Your task to perform on an android device: Show the shopping cart on amazon. Add "macbook" to the cart on amazon Image 0: 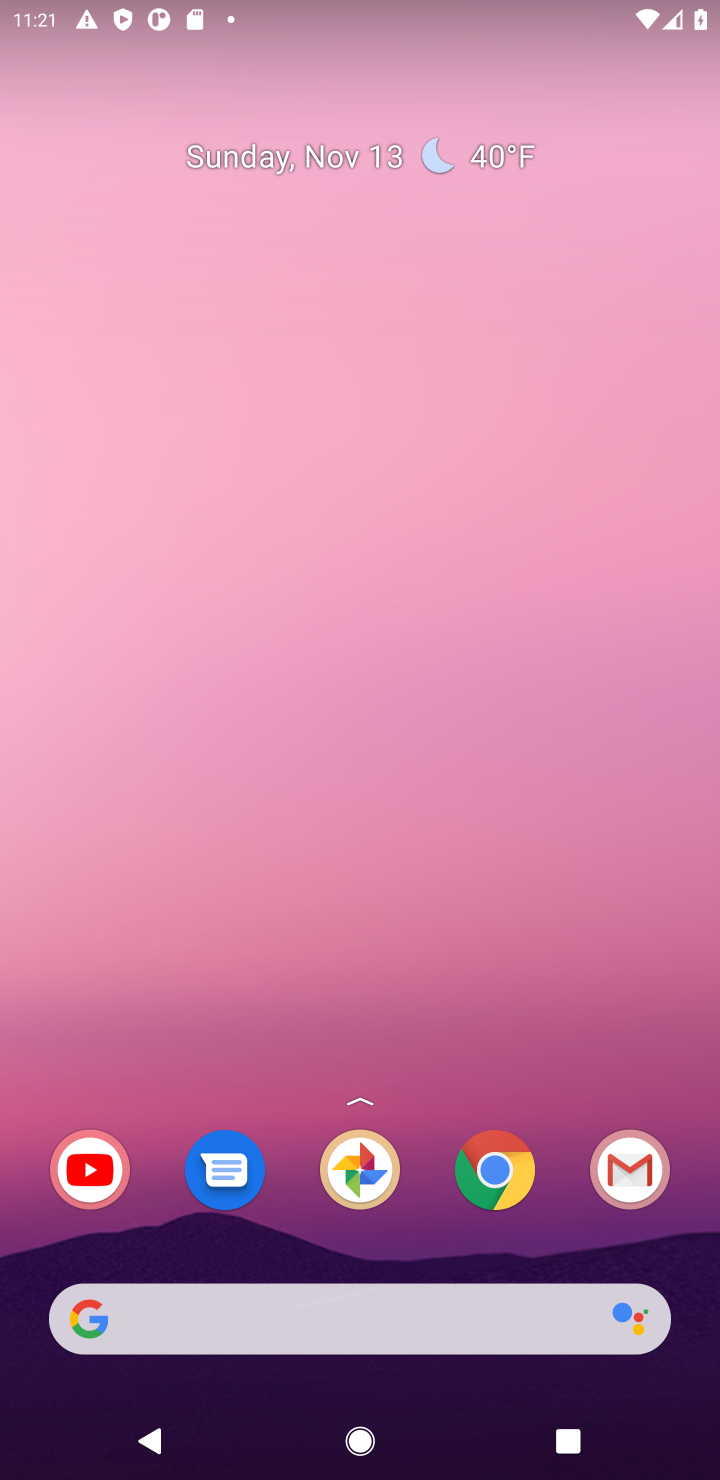
Step 0: drag from (160, 438) to (249, 6)
Your task to perform on an android device: Show the shopping cart on amazon. Add "macbook" to the cart on amazon Image 1: 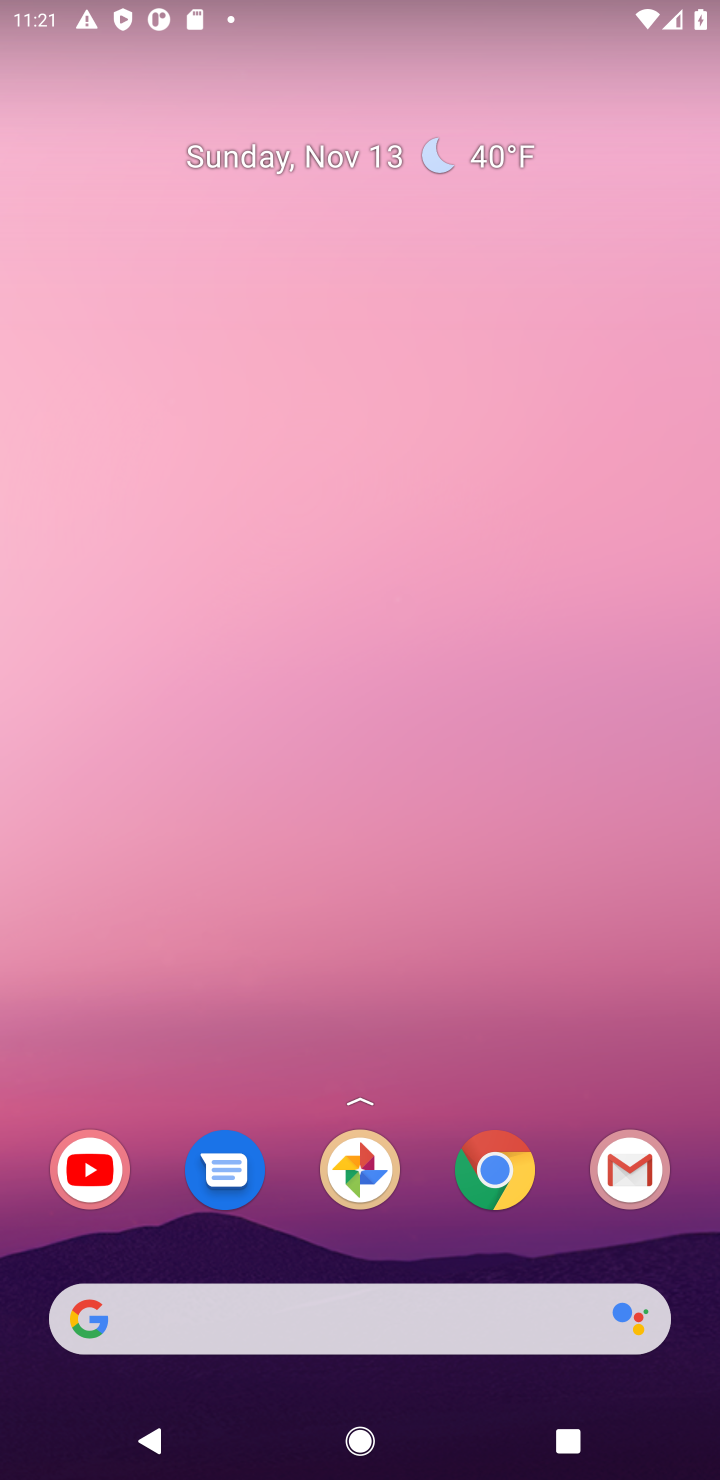
Step 1: drag from (435, 1164) to (419, 0)
Your task to perform on an android device: Show the shopping cart on amazon. Add "macbook" to the cart on amazon Image 2: 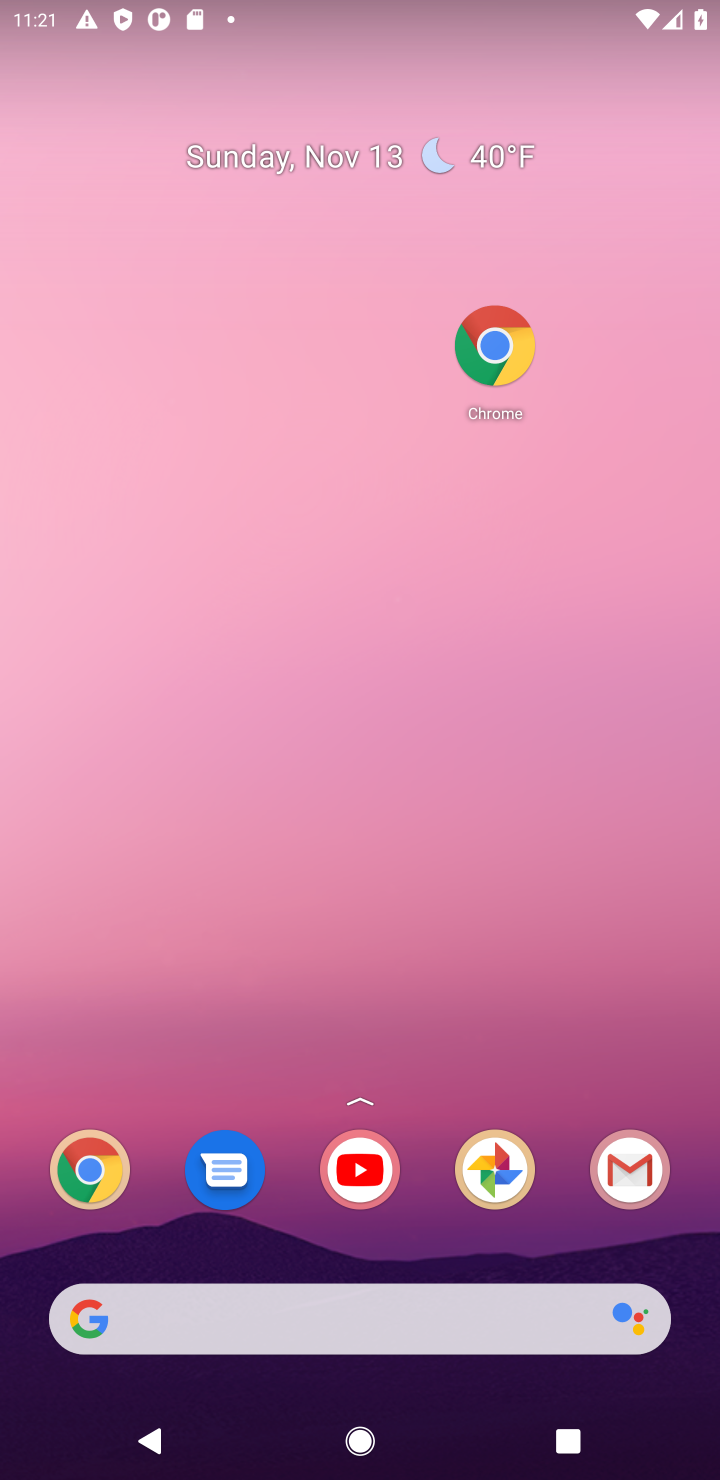
Step 2: drag from (325, 676) to (112, 18)
Your task to perform on an android device: Show the shopping cart on amazon. Add "macbook" to the cart on amazon Image 3: 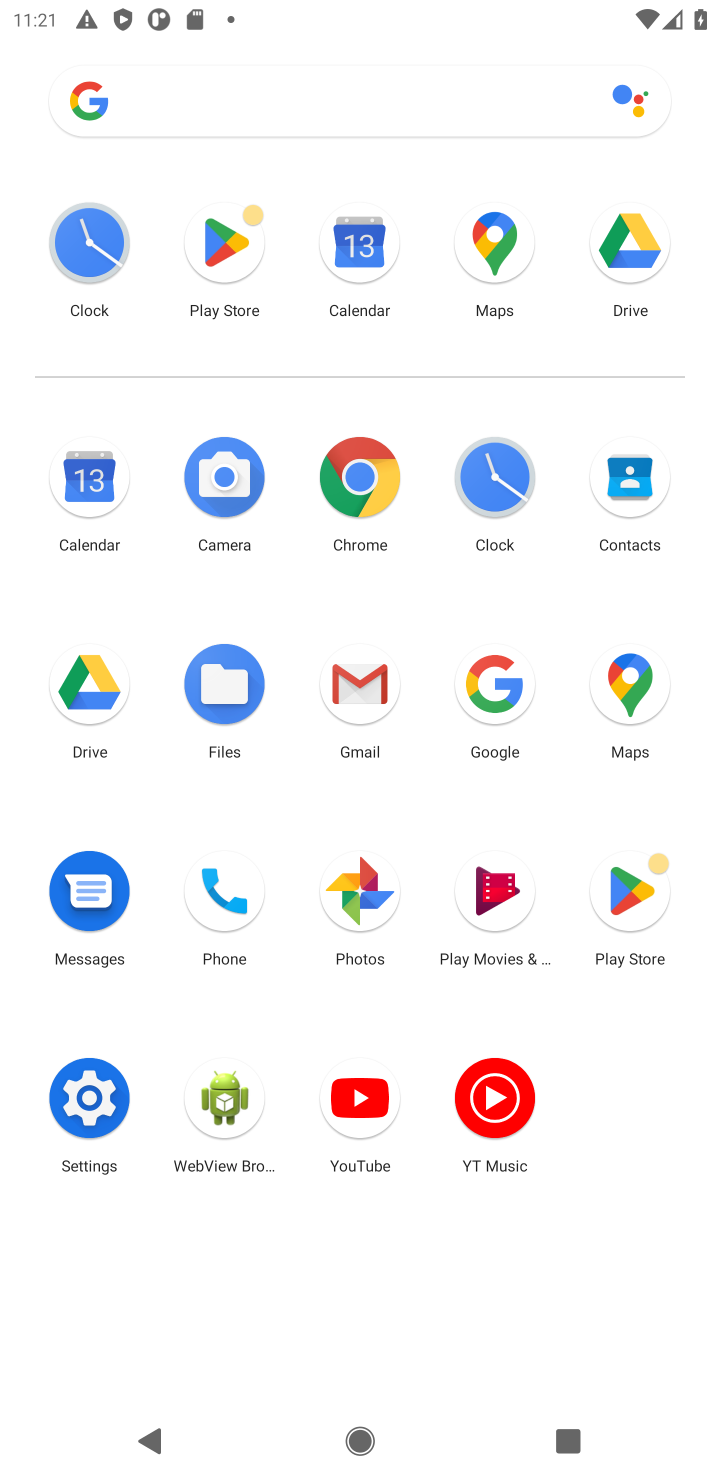
Step 3: click (352, 525)
Your task to perform on an android device: Show the shopping cart on amazon. Add "macbook" to the cart on amazon Image 4: 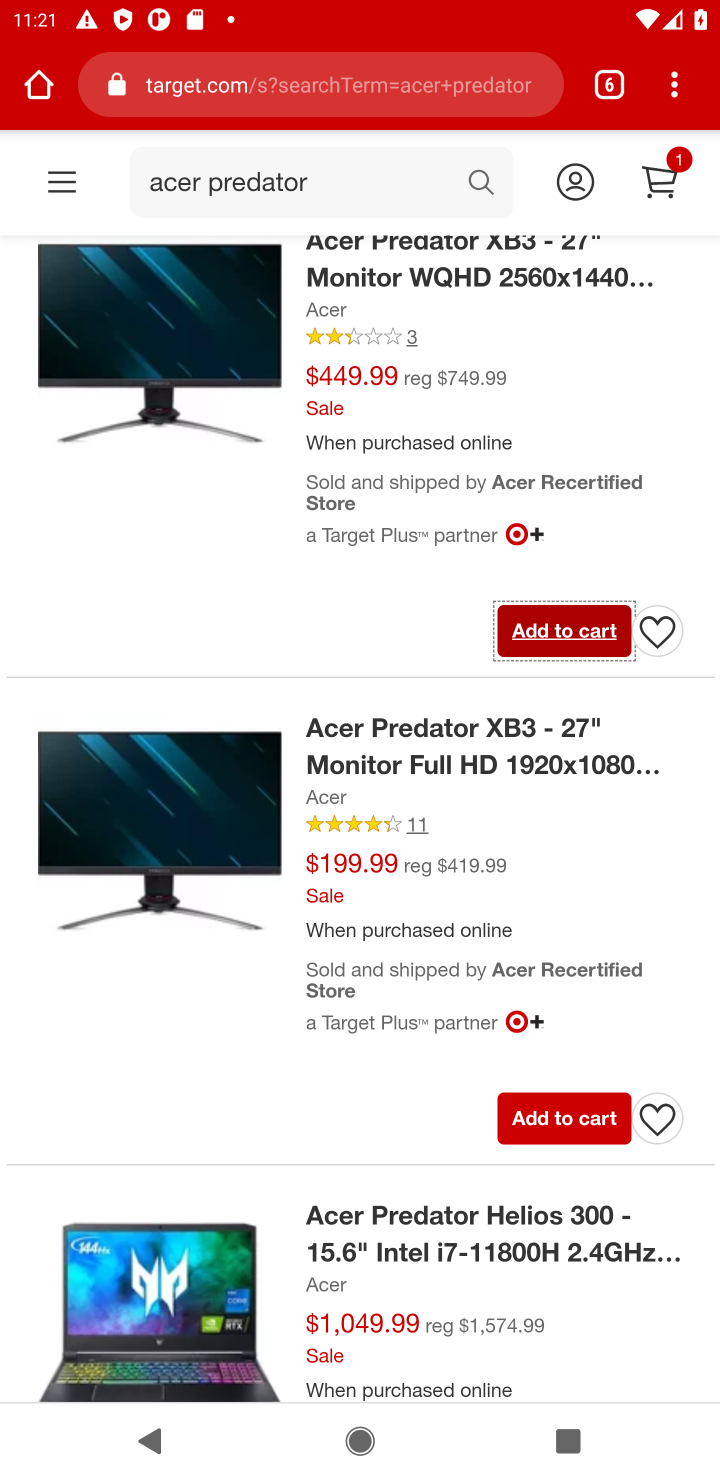
Step 4: click (265, 81)
Your task to perform on an android device: Show the shopping cart on amazon. Add "macbook" to the cart on amazon Image 5: 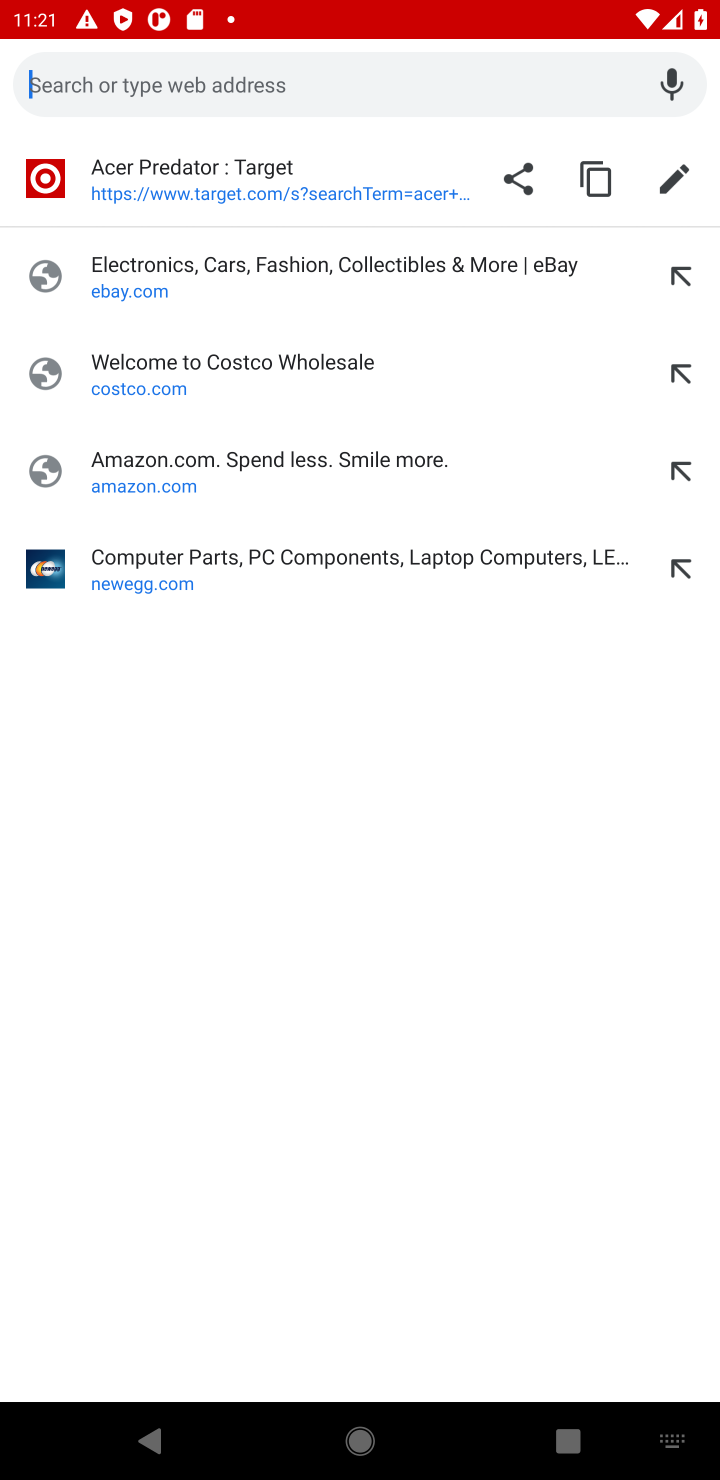
Step 5: press enter
Your task to perform on an android device: Show the shopping cart on amazon. Add "macbook" to the cart on amazon Image 6: 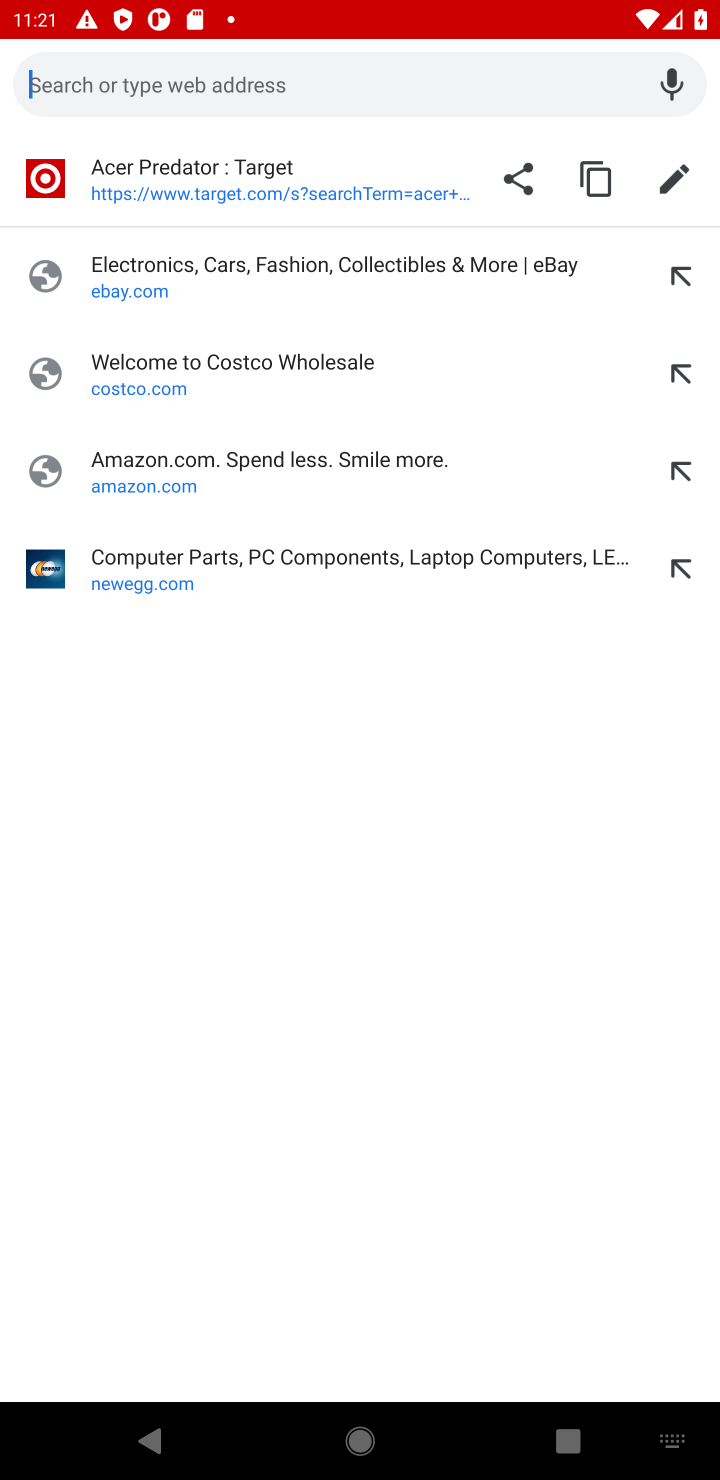
Step 6: type "amazon"
Your task to perform on an android device: Show the shopping cart on amazon. Add "macbook" to the cart on amazon Image 7: 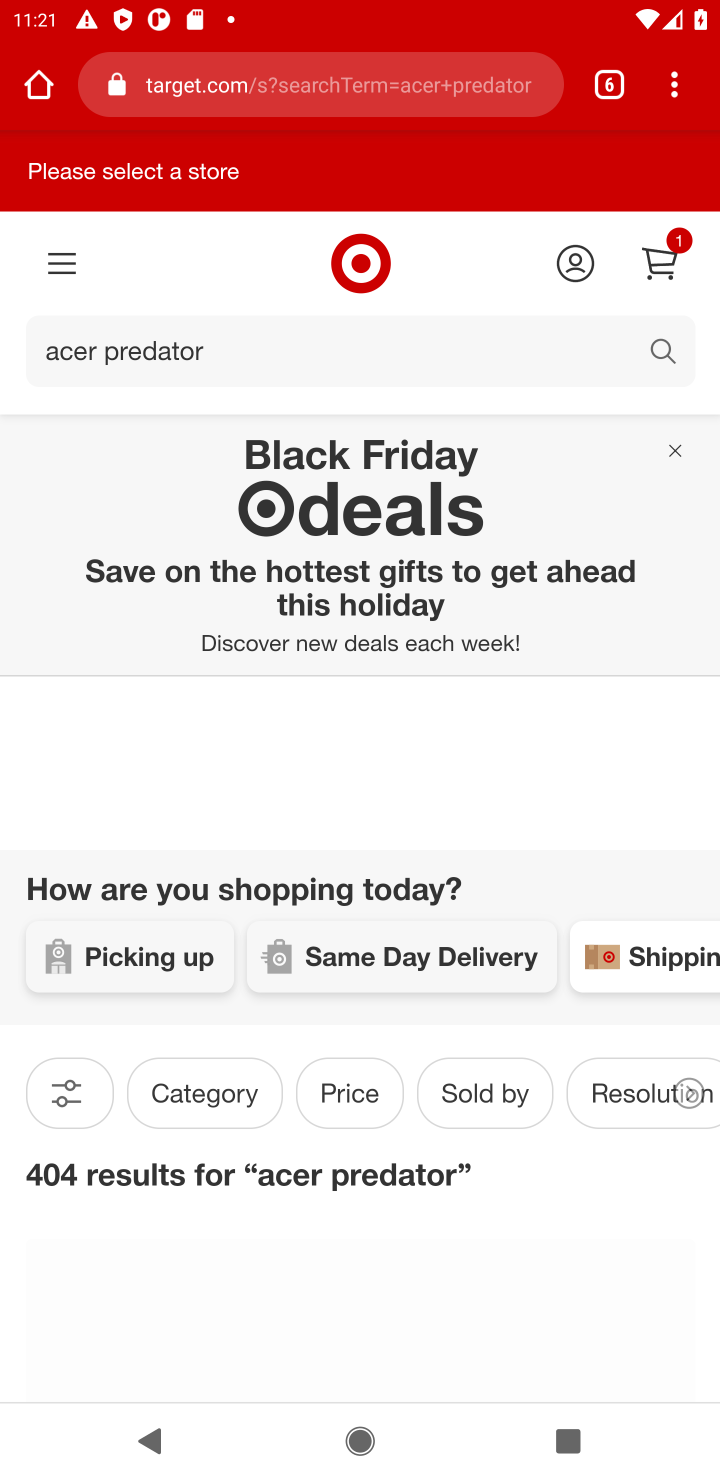
Step 7: click (455, 110)
Your task to perform on an android device: Show the shopping cart on amazon. Add "macbook" to the cart on amazon Image 8: 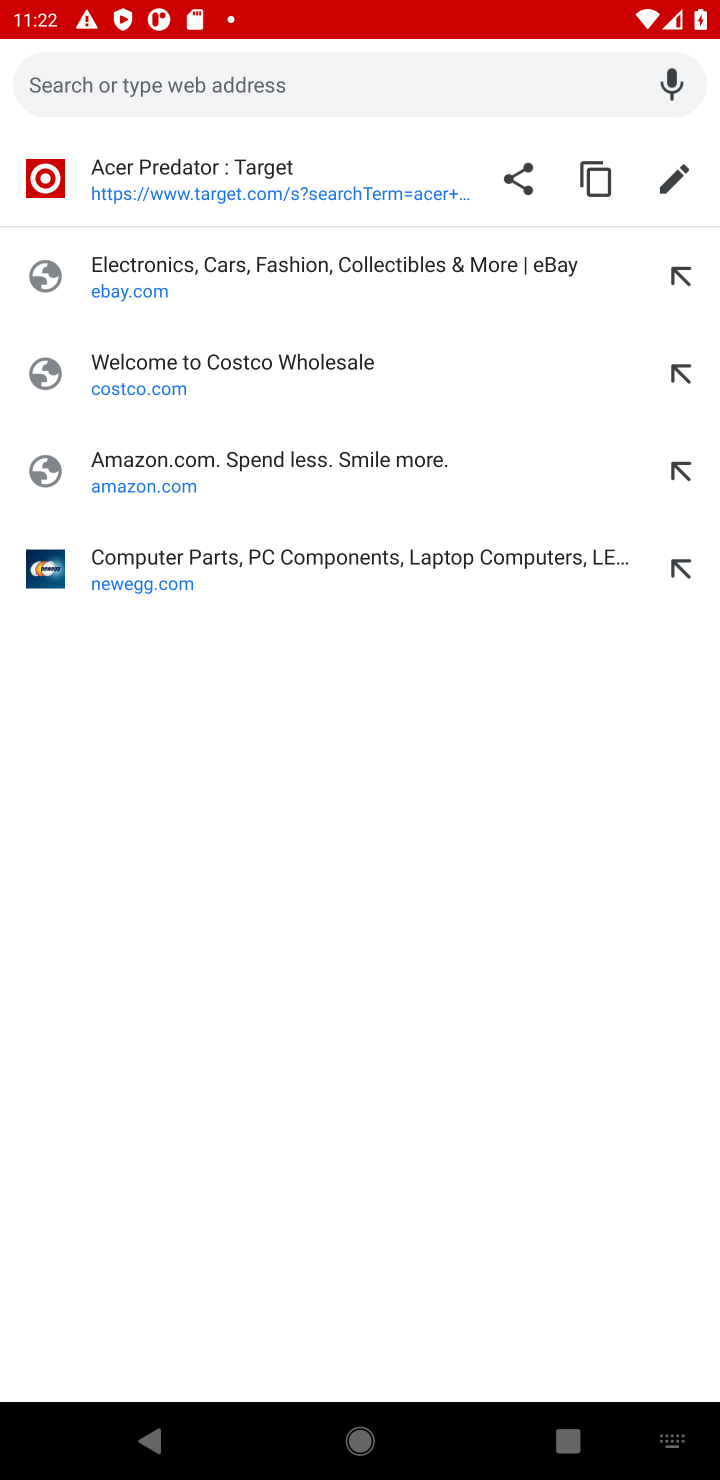
Step 8: type "amazon"
Your task to perform on an android device: Show the shopping cart on amazon. Add "macbook" to the cart on amazon Image 9: 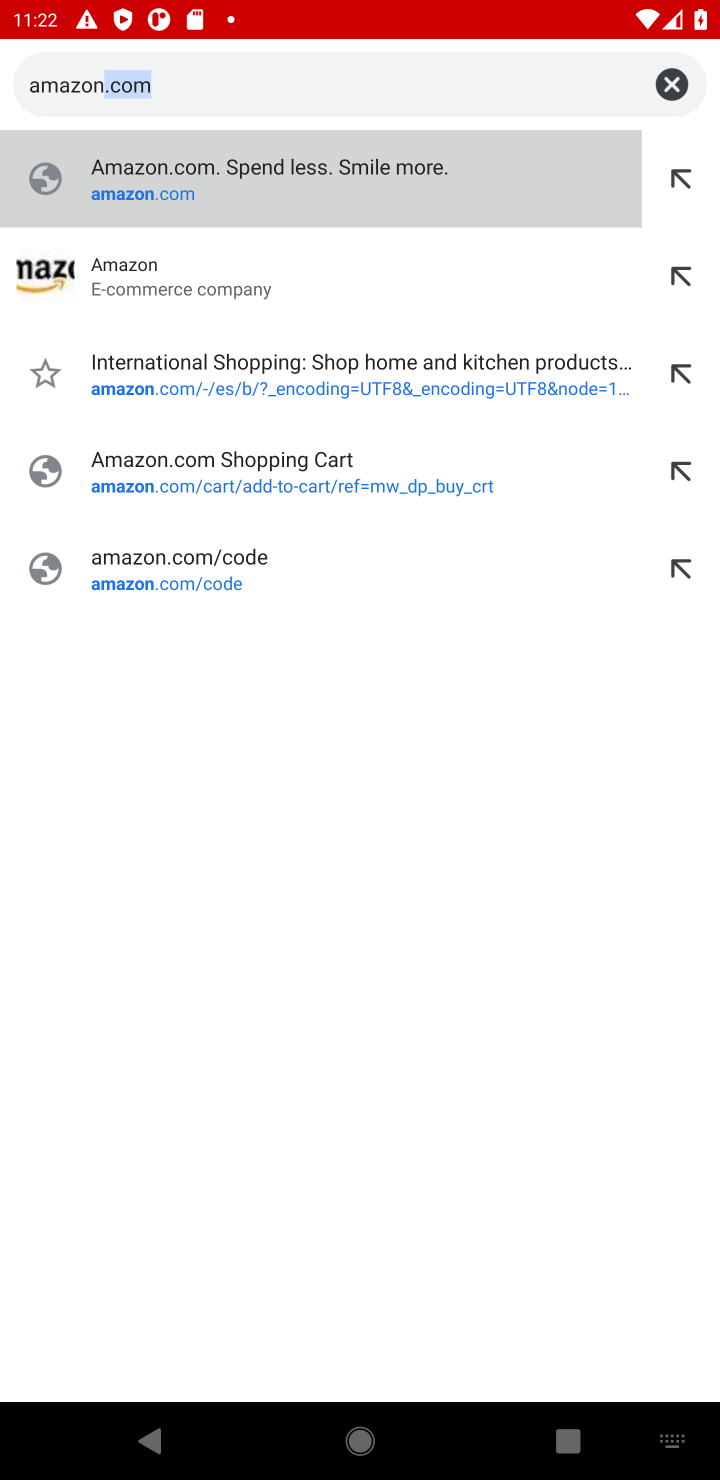
Step 9: press enter
Your task to perform on an android device: Show the shopping cart on amazon. Add "macbook" to the cart on amazon Image 10: 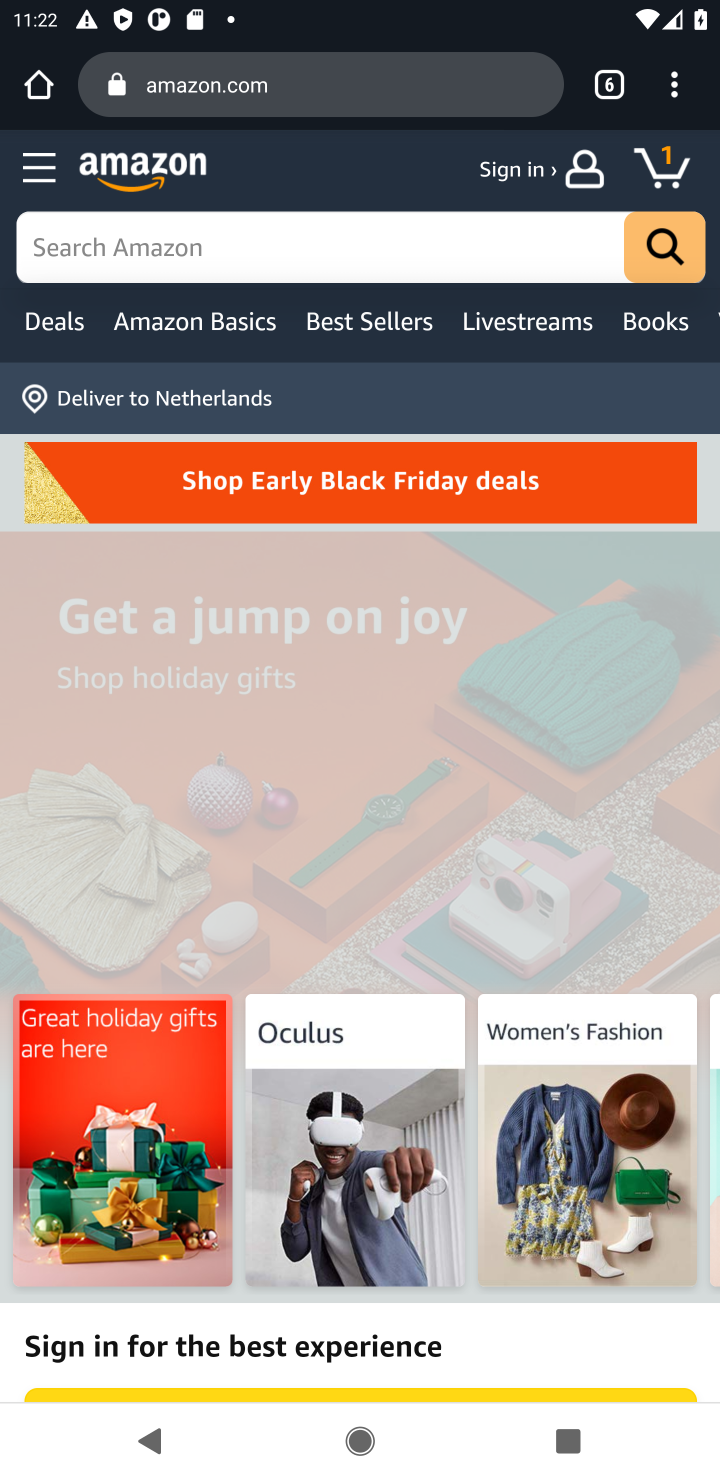
Step 10: click (187, 239)
Your task to perform on an android device: Show the shopping cart on amazon. Add "macbook" to the cart on amazon Image 11: 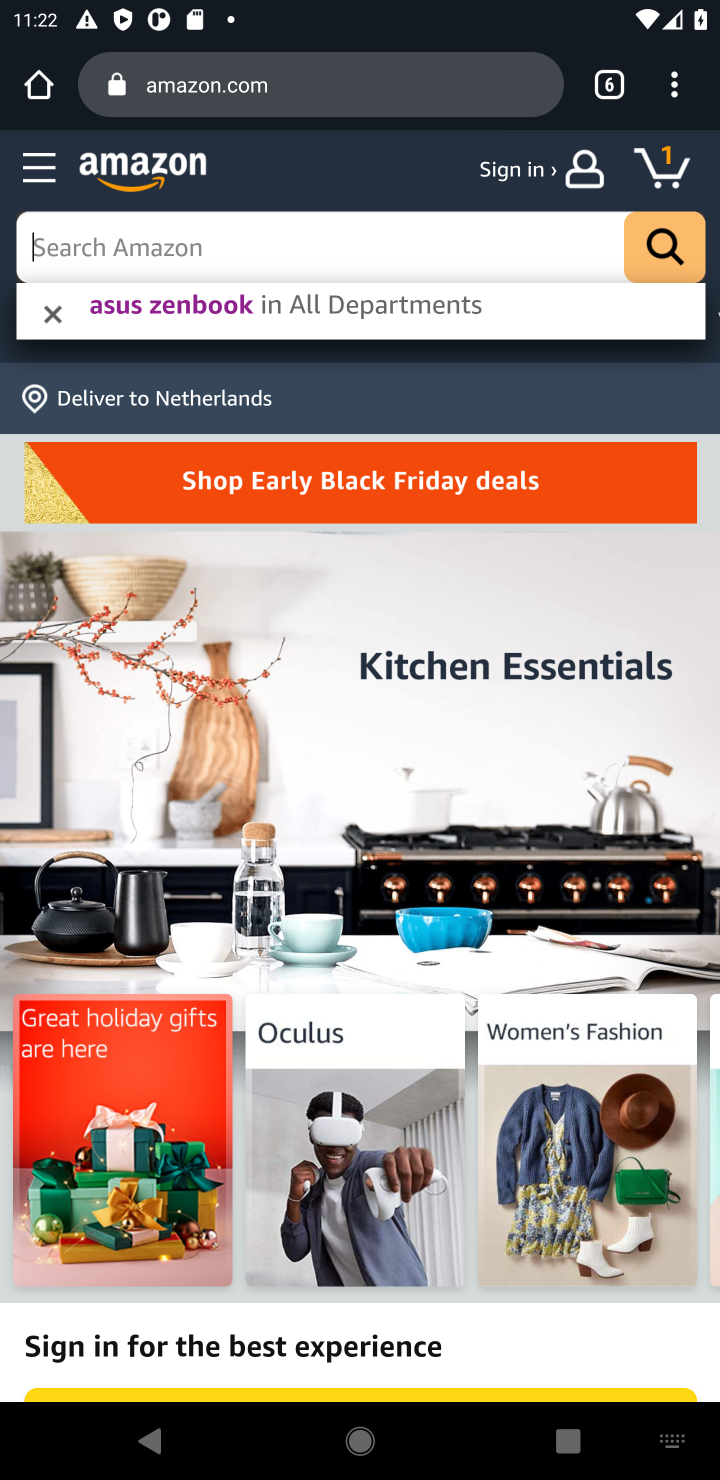
Step 11: type "macbook"
Your task to perform on an android device: Show the shopping cart on amazon. Add "macbook" to the cart on amazon Image 12: 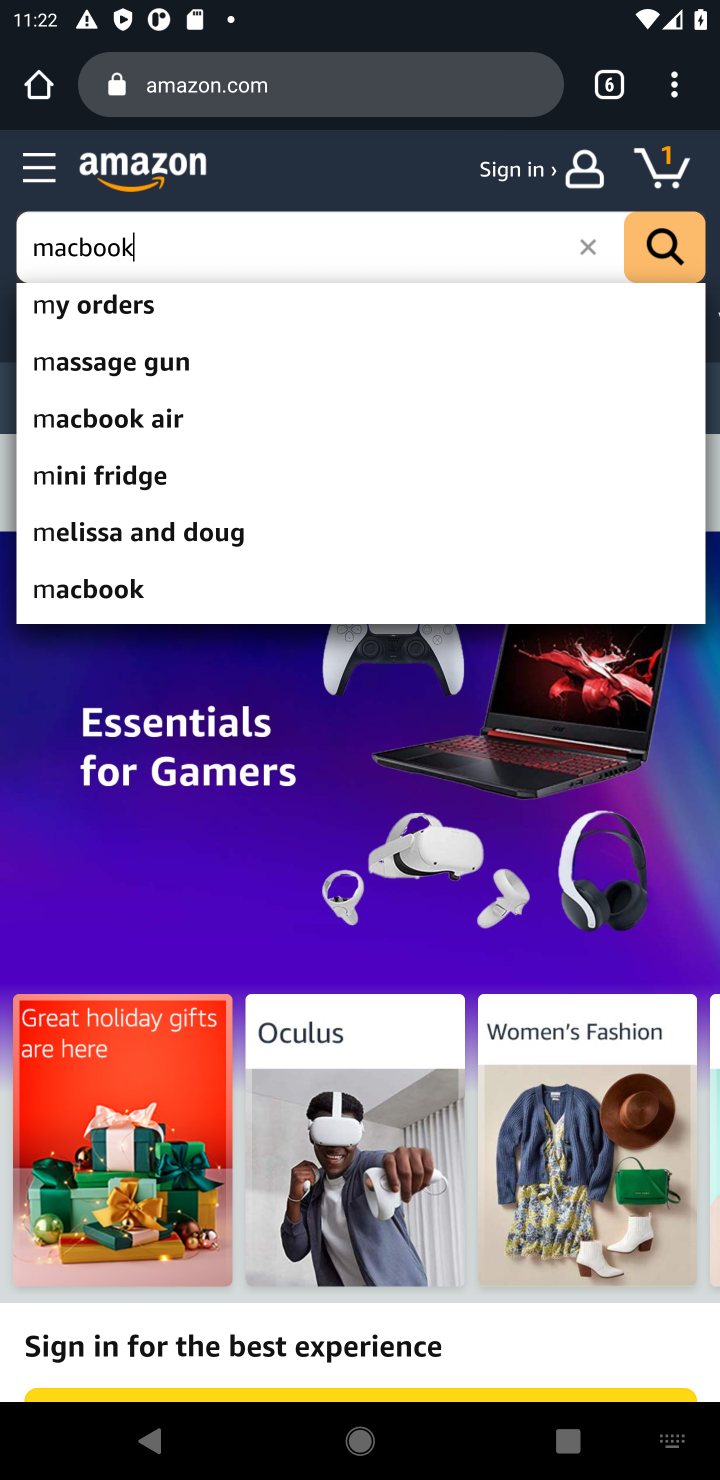
Step 12: press enter
Your task to perform on an android device: Show the shopping cart on amazon. Add "macbook" to the cart on amazon Image 13: 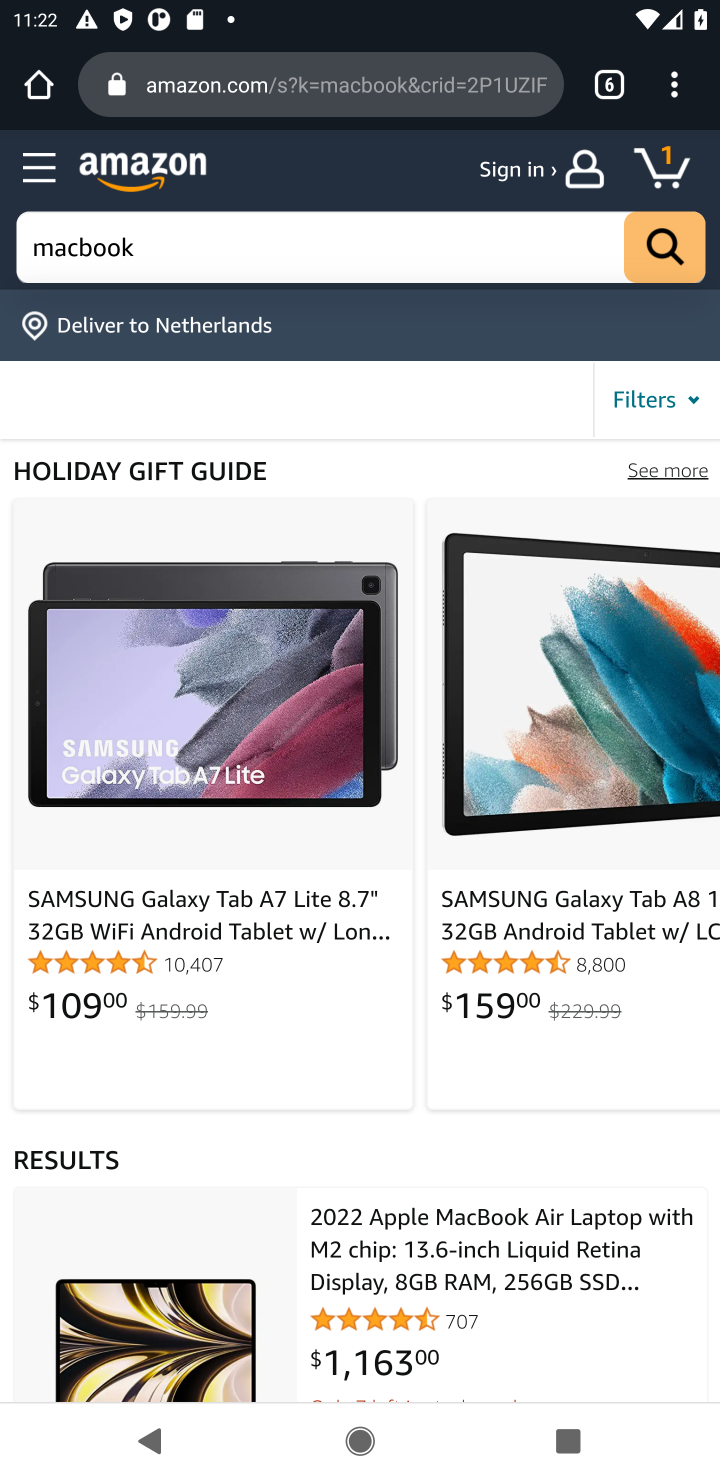
Step 13: click (199, 921)
Your task to perform on an android device: Show the shopping cart on amazon. Add "macbook" to the cart on amazon Image 14: 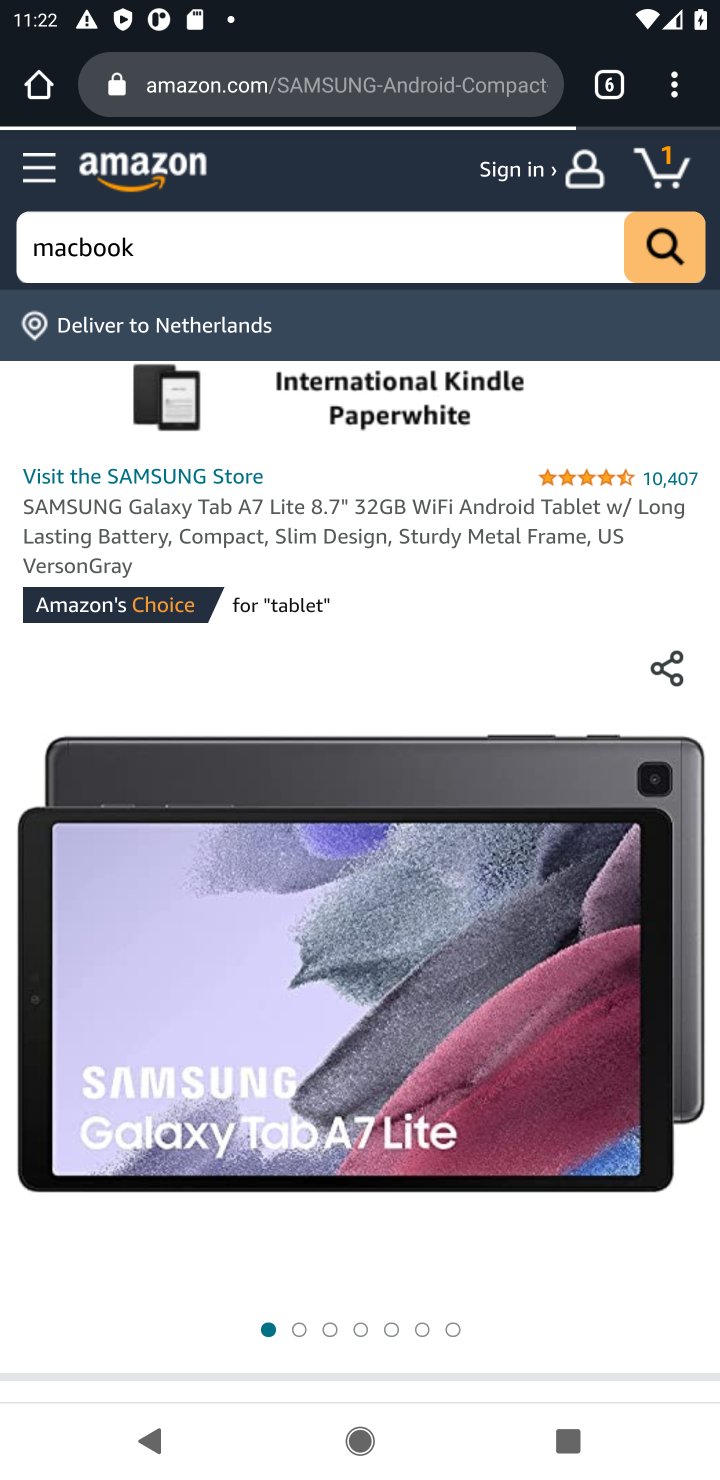
Step 14: drag from (313, 1004) to (439, 404)
Your task to perform on an android device: Show the shopping cart on amazon. Add "macbook" to the cart on amazon Image 15: 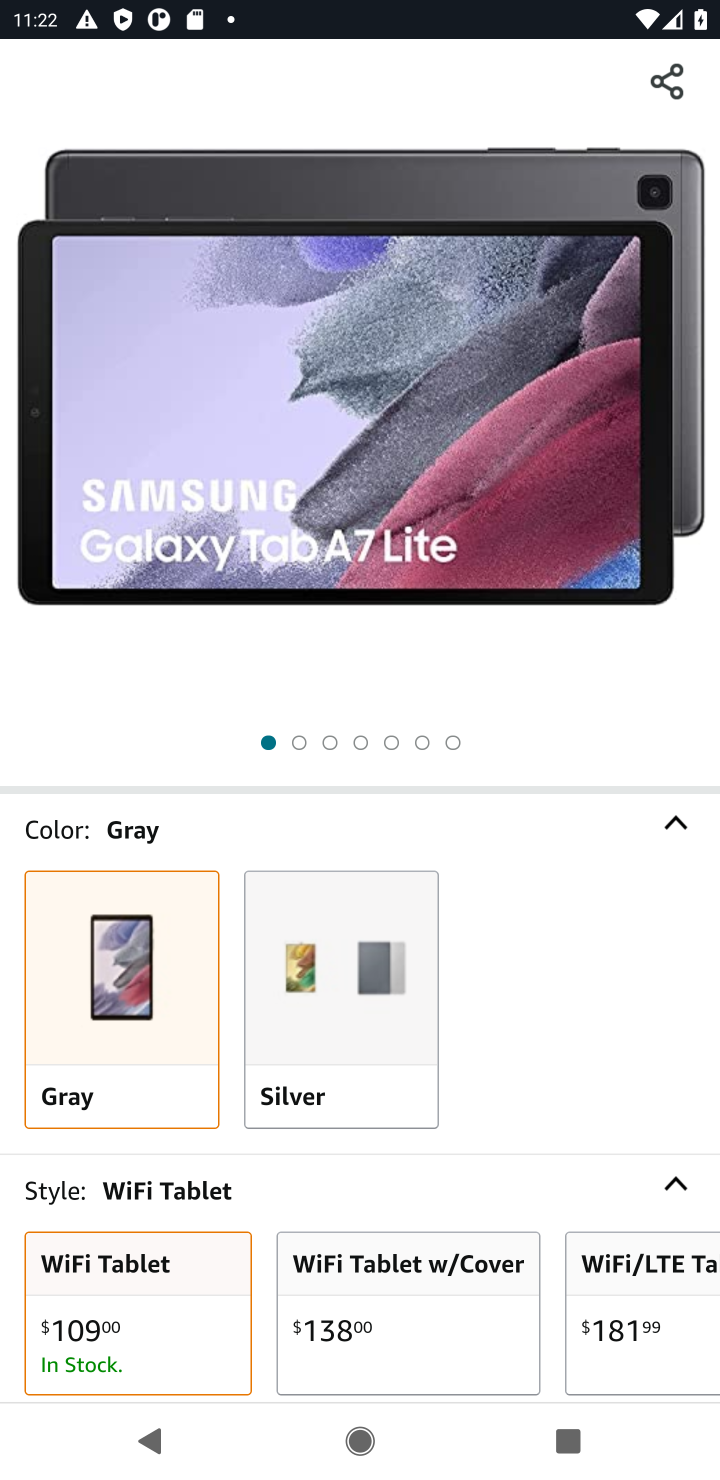
Step 15: drag from (464, 1088) to (584, 406)
Your task to perform on an android device: Show the shopping cart on amazon. Add "macbook" to the cart on amazon Image 16: 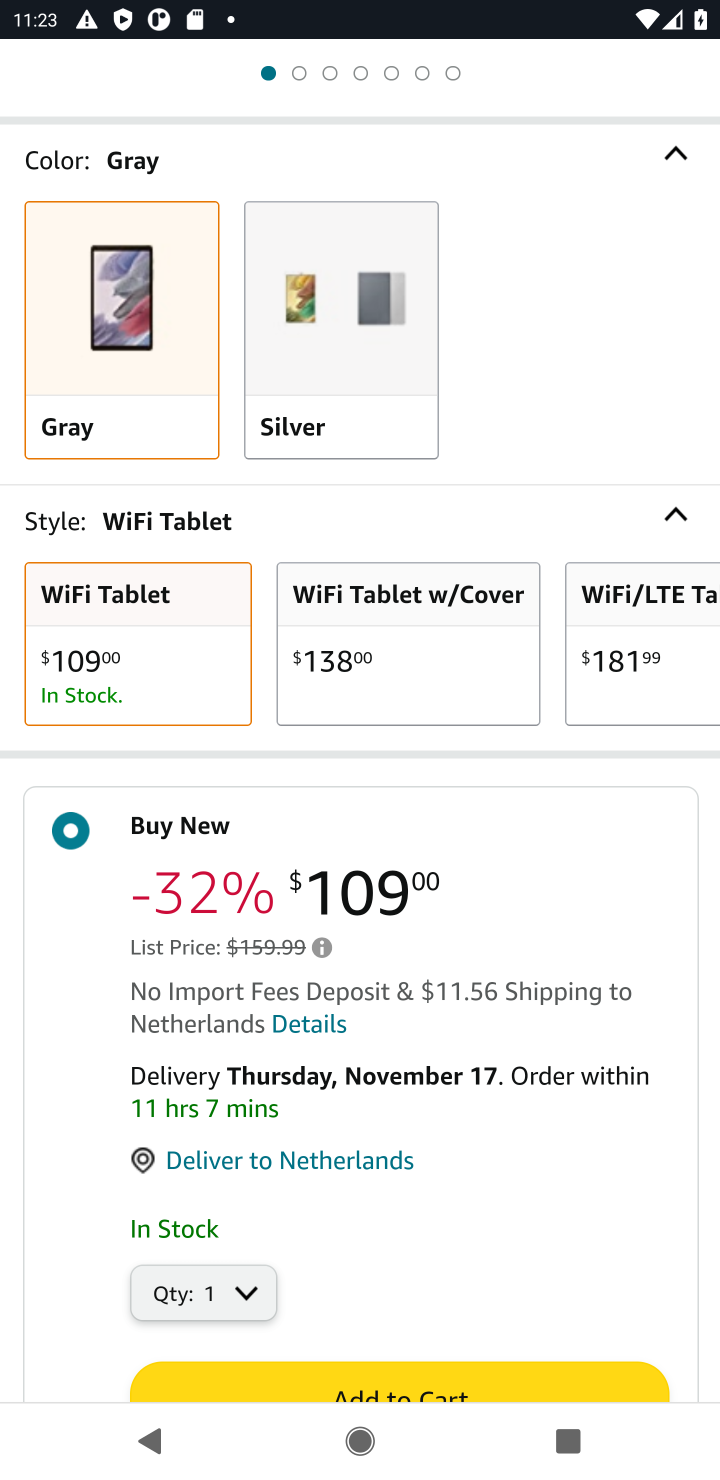
Step 16: drag from (390, 1167) to (523, 293)
Your task to perform on an android device: Show the shopping cart on amazon. Add "macbook" to the cart on amazon Image 17: 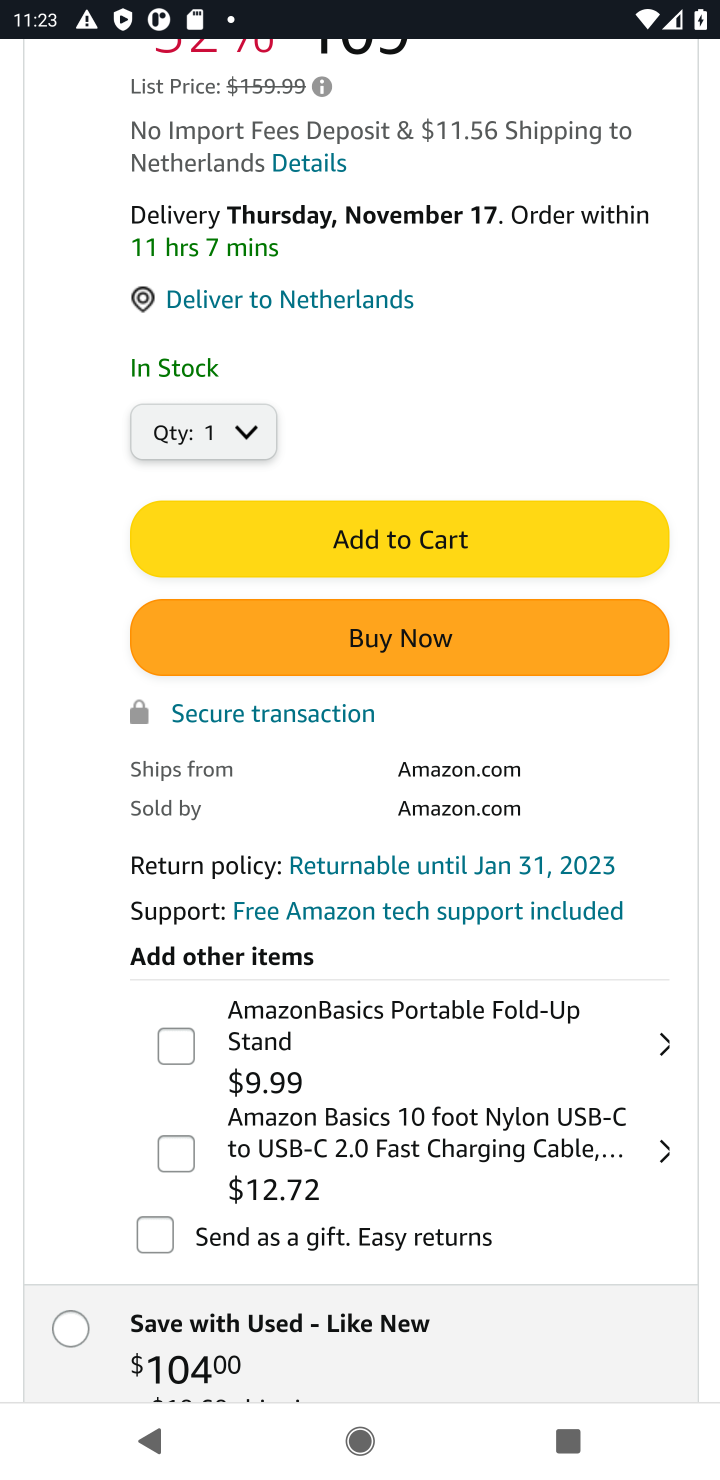
Step 17: click (491, 543)
Your task to perform on an android device: Show the shopping cart on amazon. Add "macbook" to the cart on amazon Image 18: 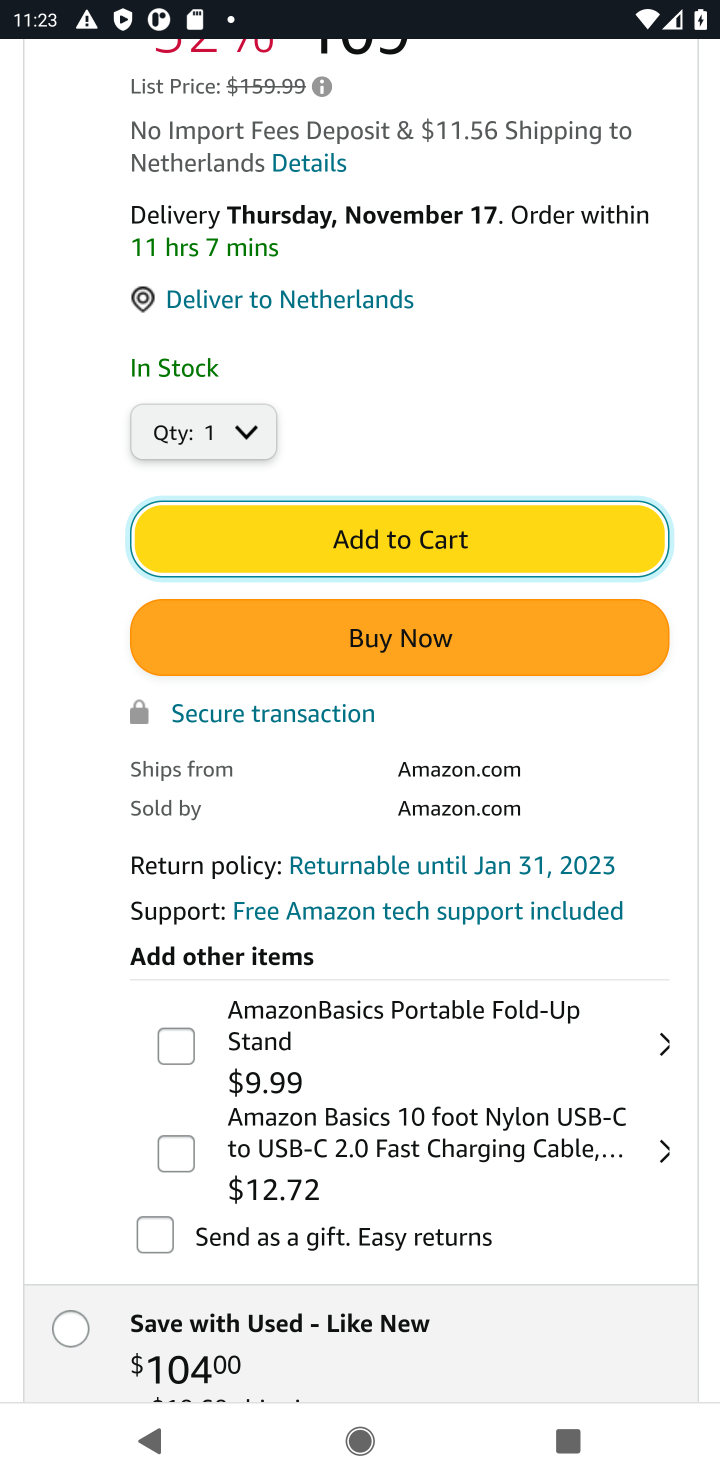
Step 18: click (461, 550)
Your task to perform on an android device: Show the shopping cart on amazon. Add "macbook" to the cart on amazon Image 19: 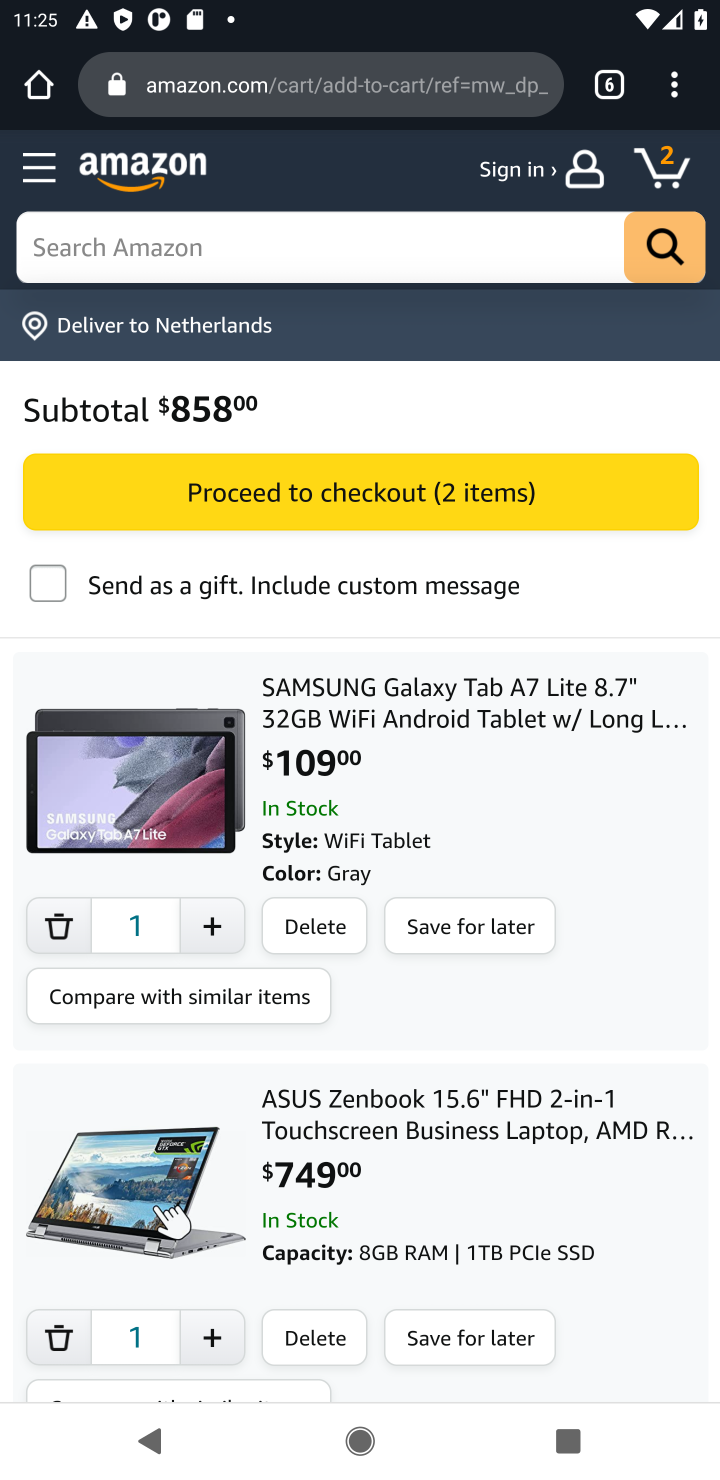
Step 19: task complete